Your task to perform on an android device: open a bookmark in the chrome app Image 0: 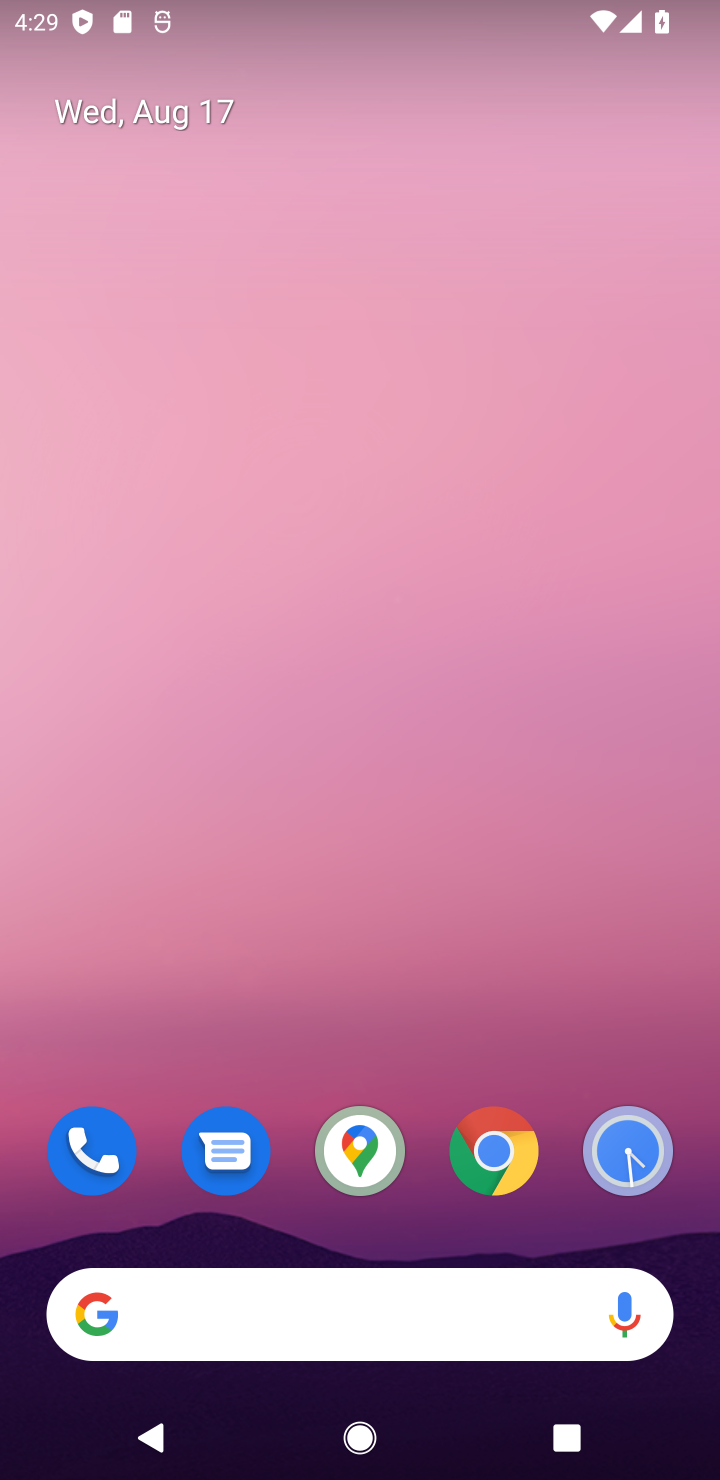
Step 0: press home button
Your task to perform on an android device: open a bookmark in the chrome app Image 1: 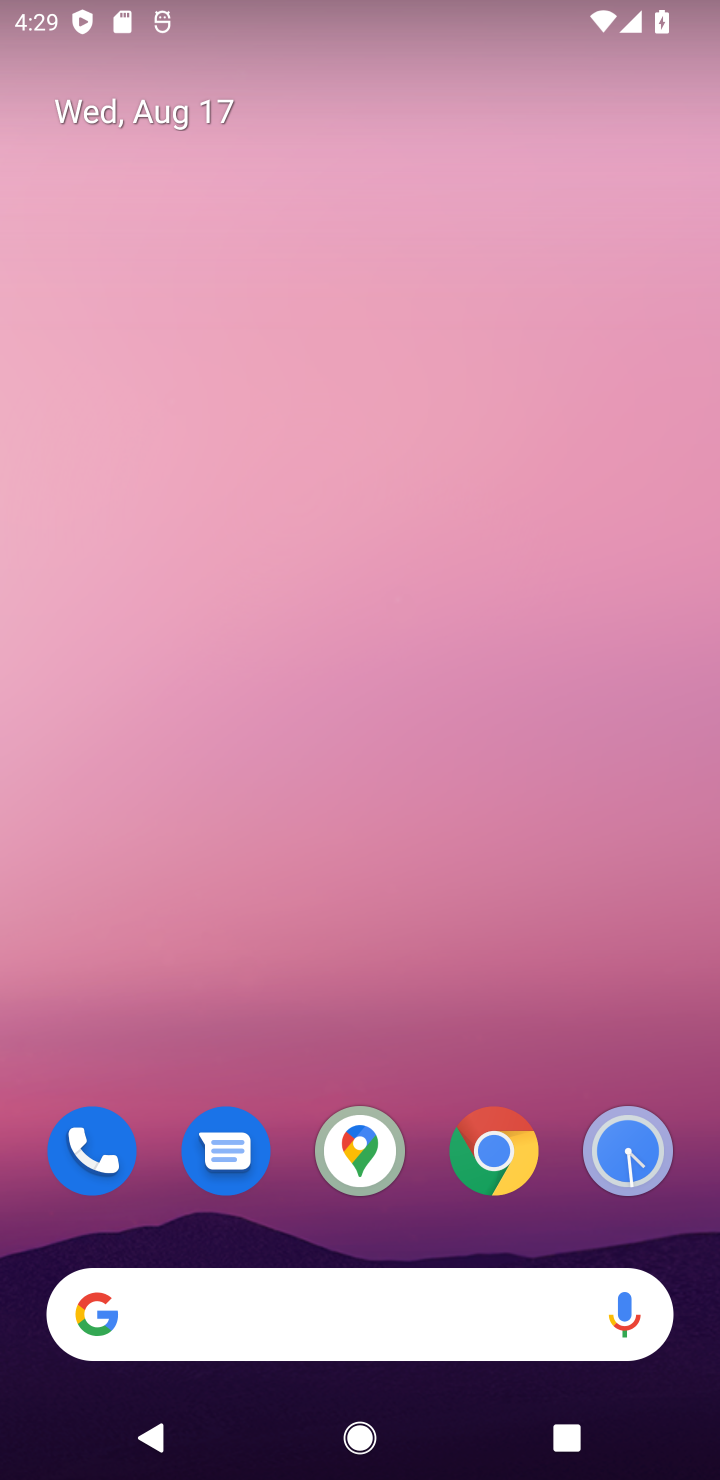
Step 1: drag from (440, 1234) to (453, 31)
Your task to perform on an android device: open a bookmark in the chrome app Image 2: 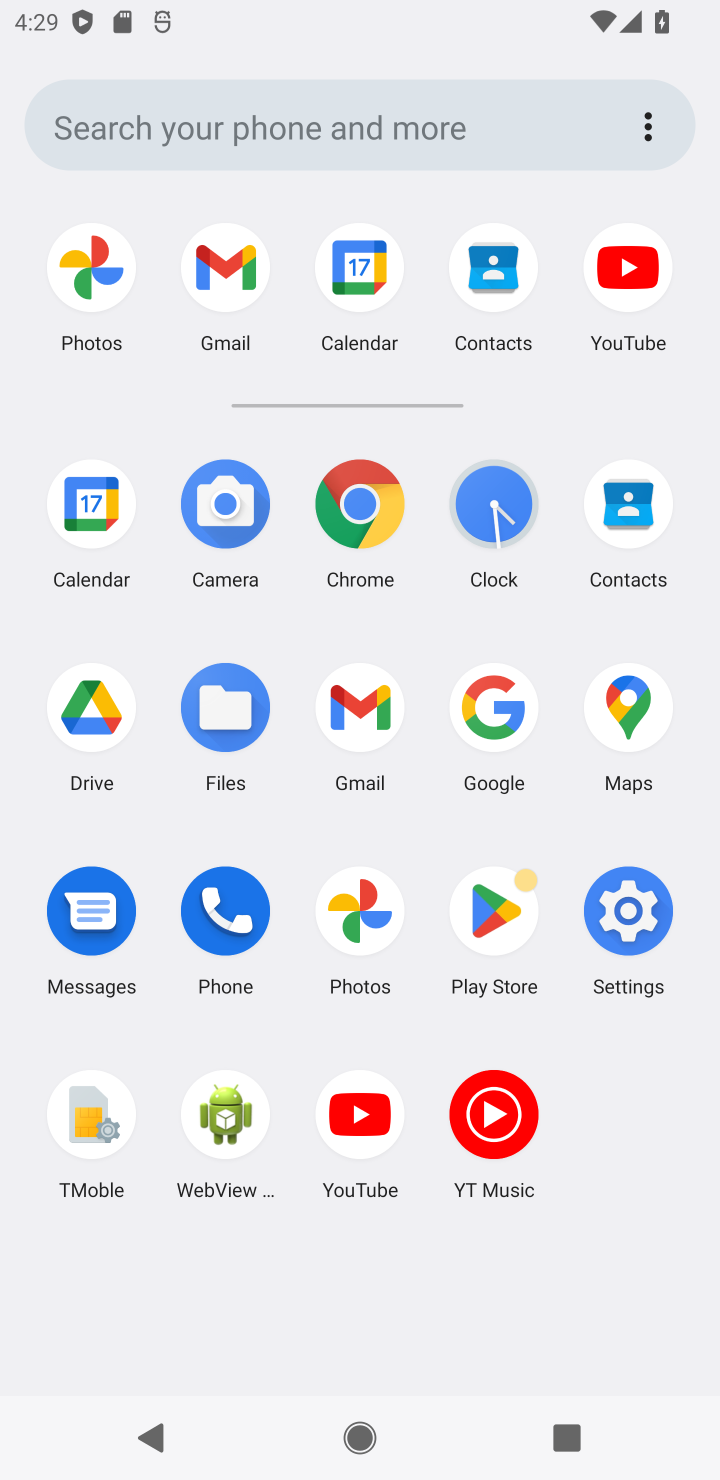
Step 2: click (352, 530)
Your task to perform on an android device: open a bookmark in the chrome app Image 3: 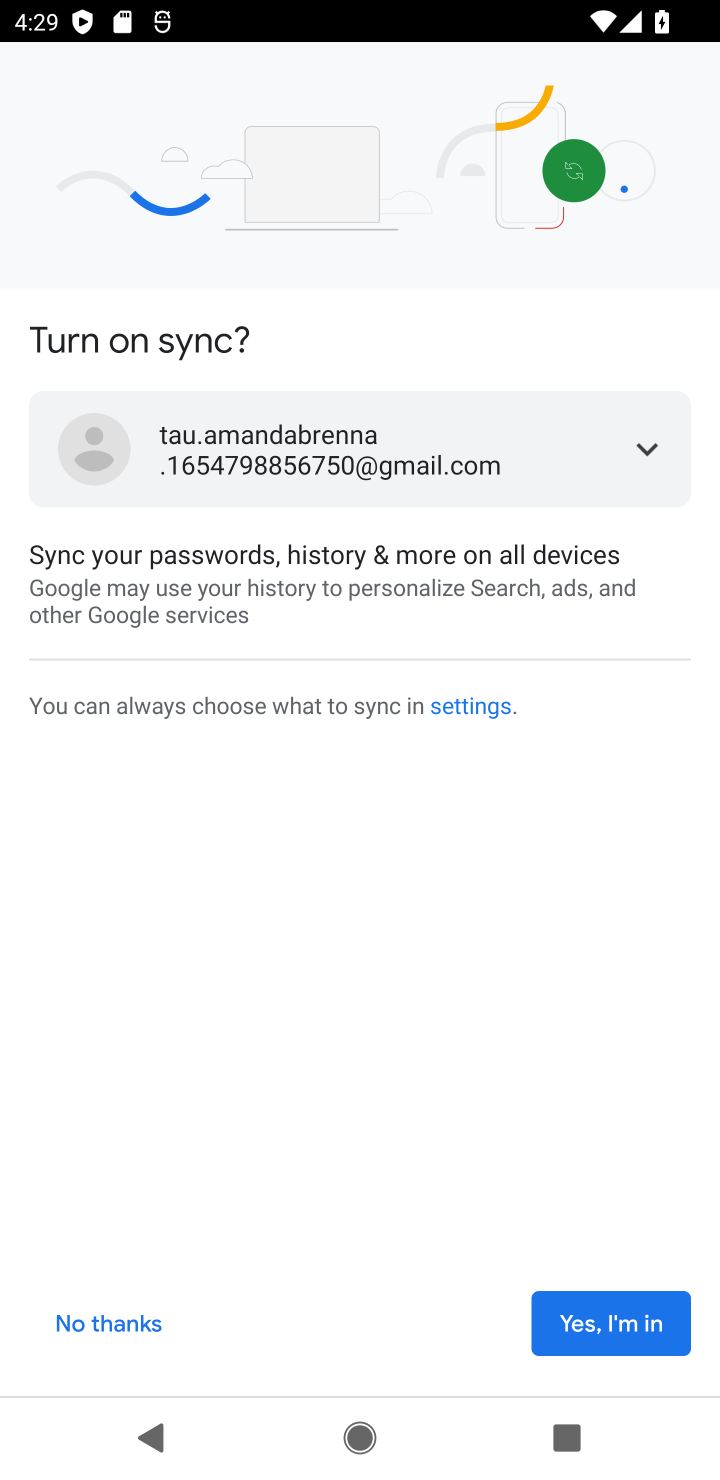
Step 3: click (609, 1346)
Your task to perform on an android device: open a bookmark in the chrome app Image 4: 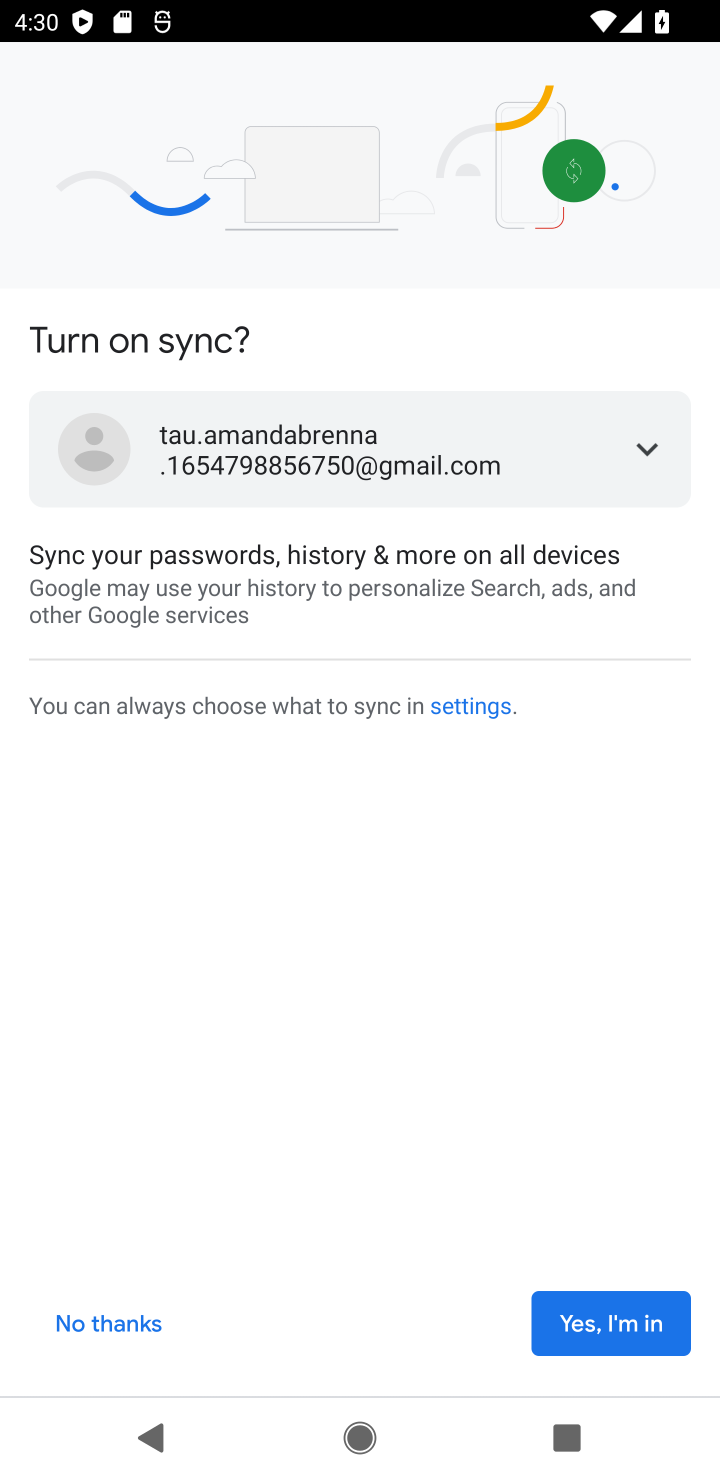
Step 4: click (609, 1346)
Your task to perform on an android device: open a bookmark in the chrome app Image 5: 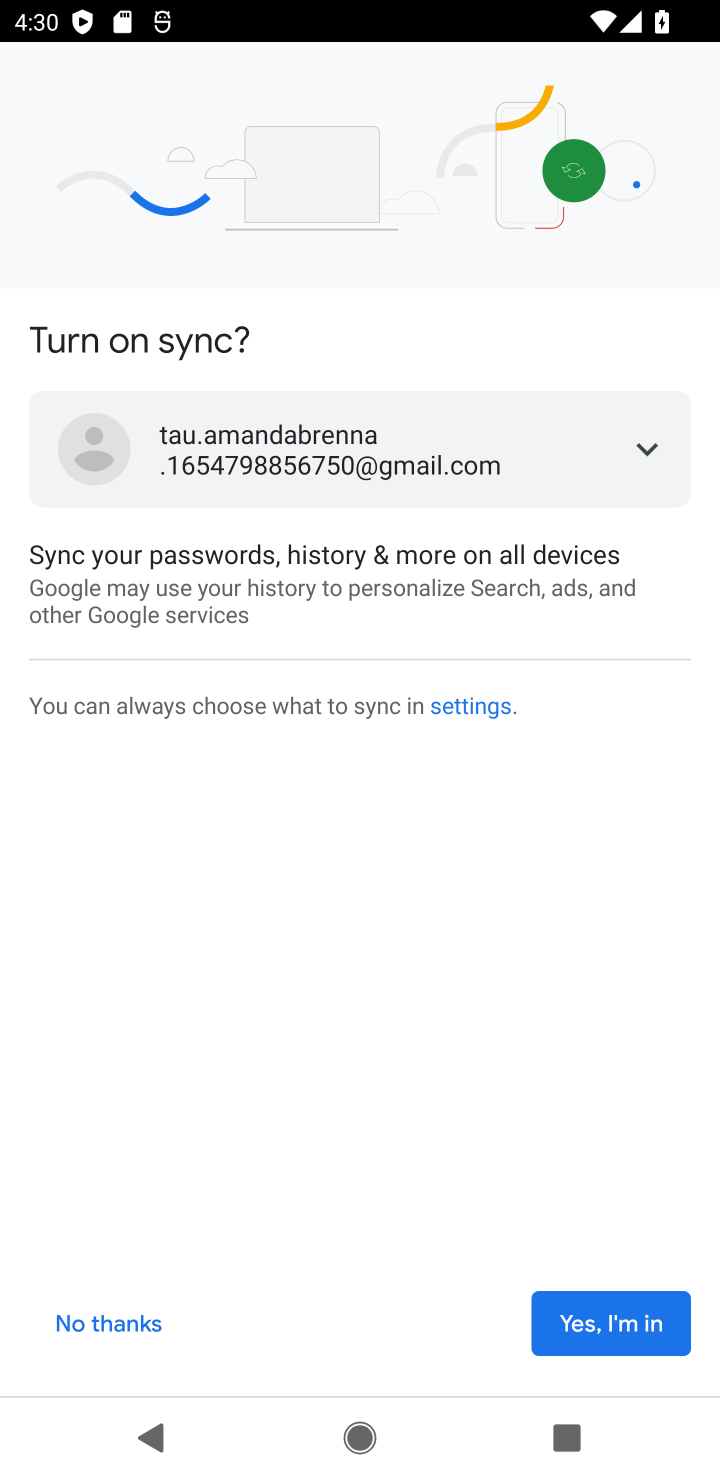
Step 5: click (609, 1346)
Your task to perform on an android device: open a bookmark in the chrome app Image 6: 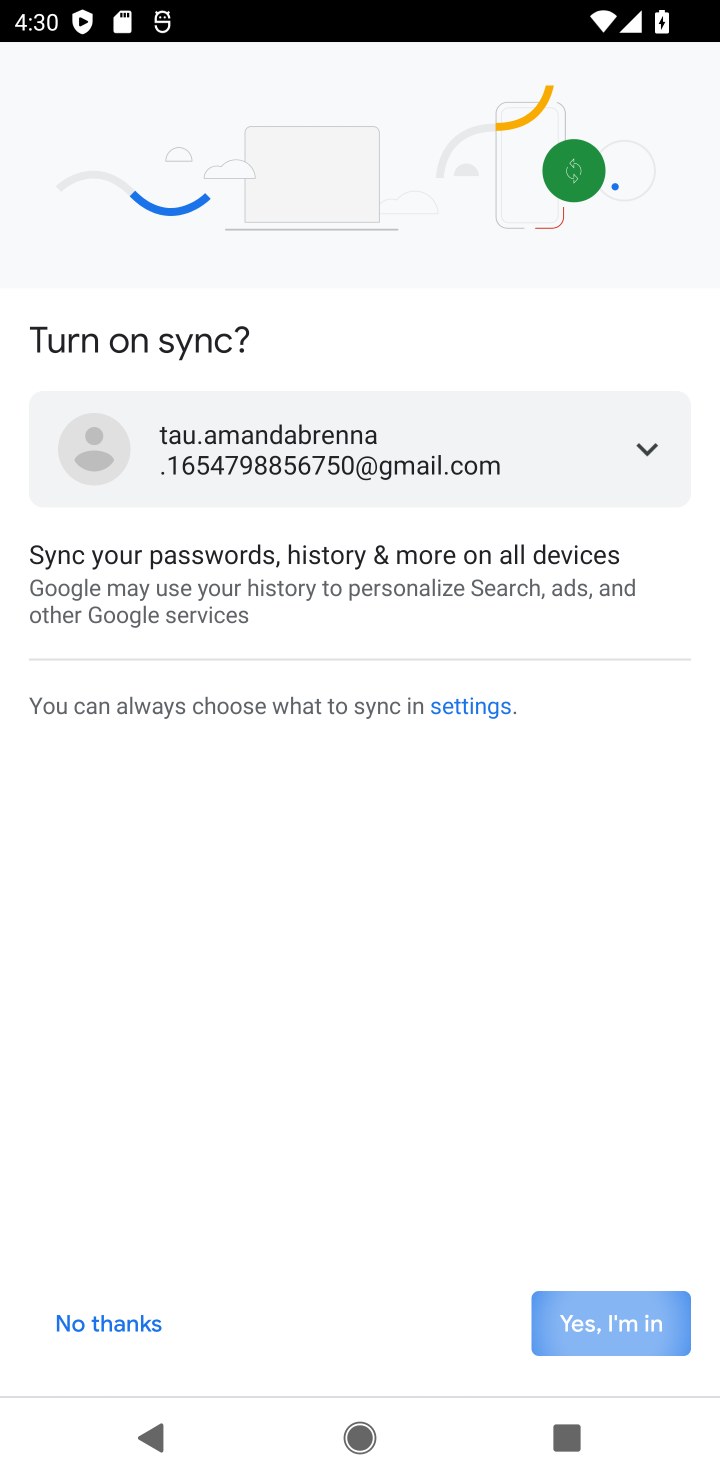
Step 6: click (609, 1346)
Your task to perform on an android device: open a bookmark in the chrome app Image 7: 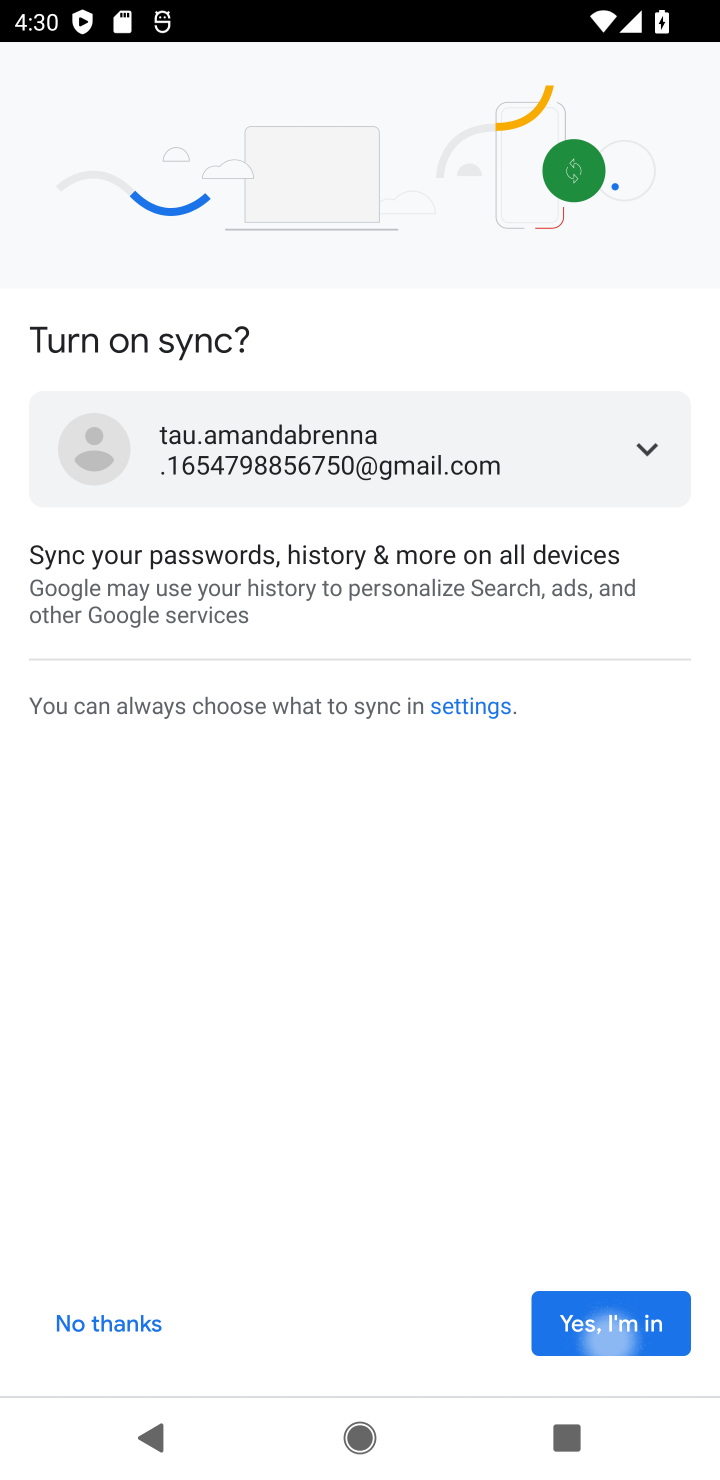
Step 7: click (609, 1346)
Your task to perform on an android device: open a bookmark in the chrome app Image 8: 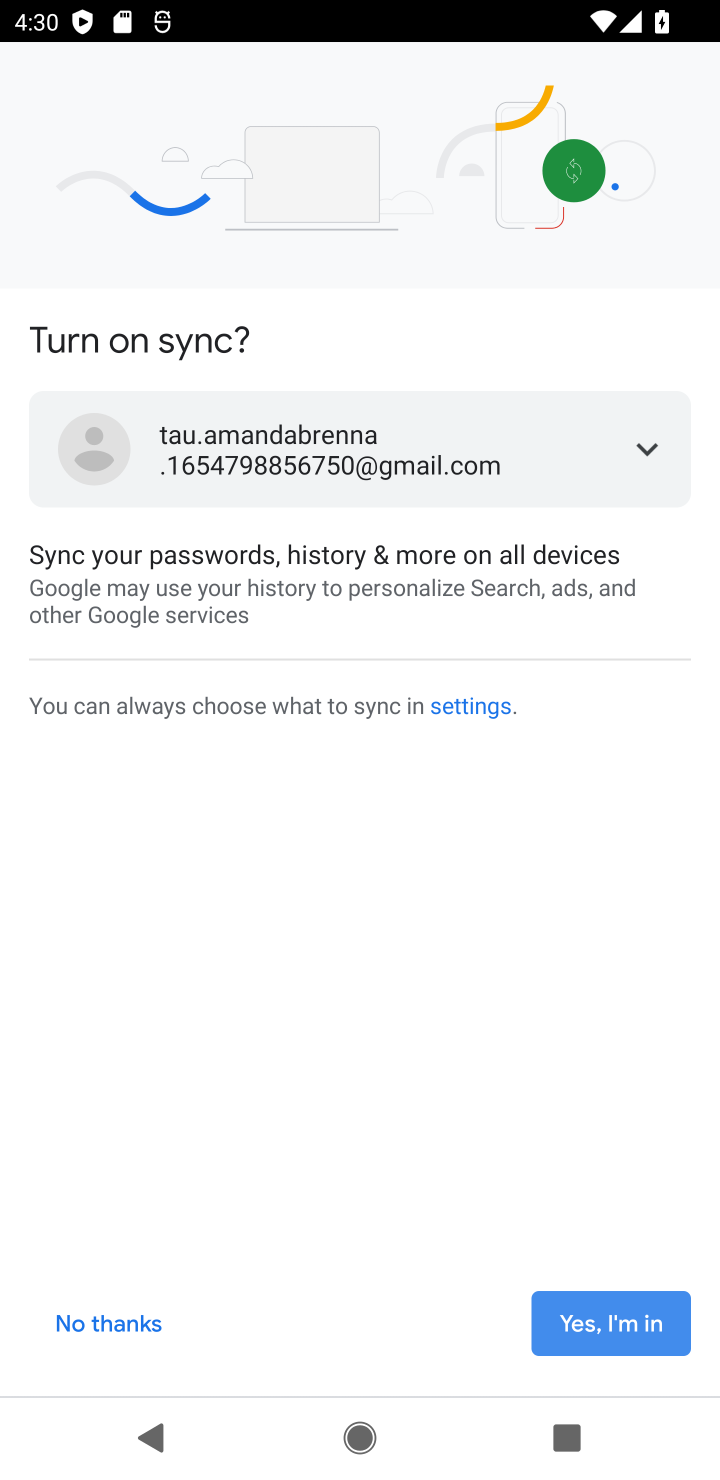
Step 8: click (609, 1346)
Your task to perform on an android device: open a bookmark in the chrome app Image 9: 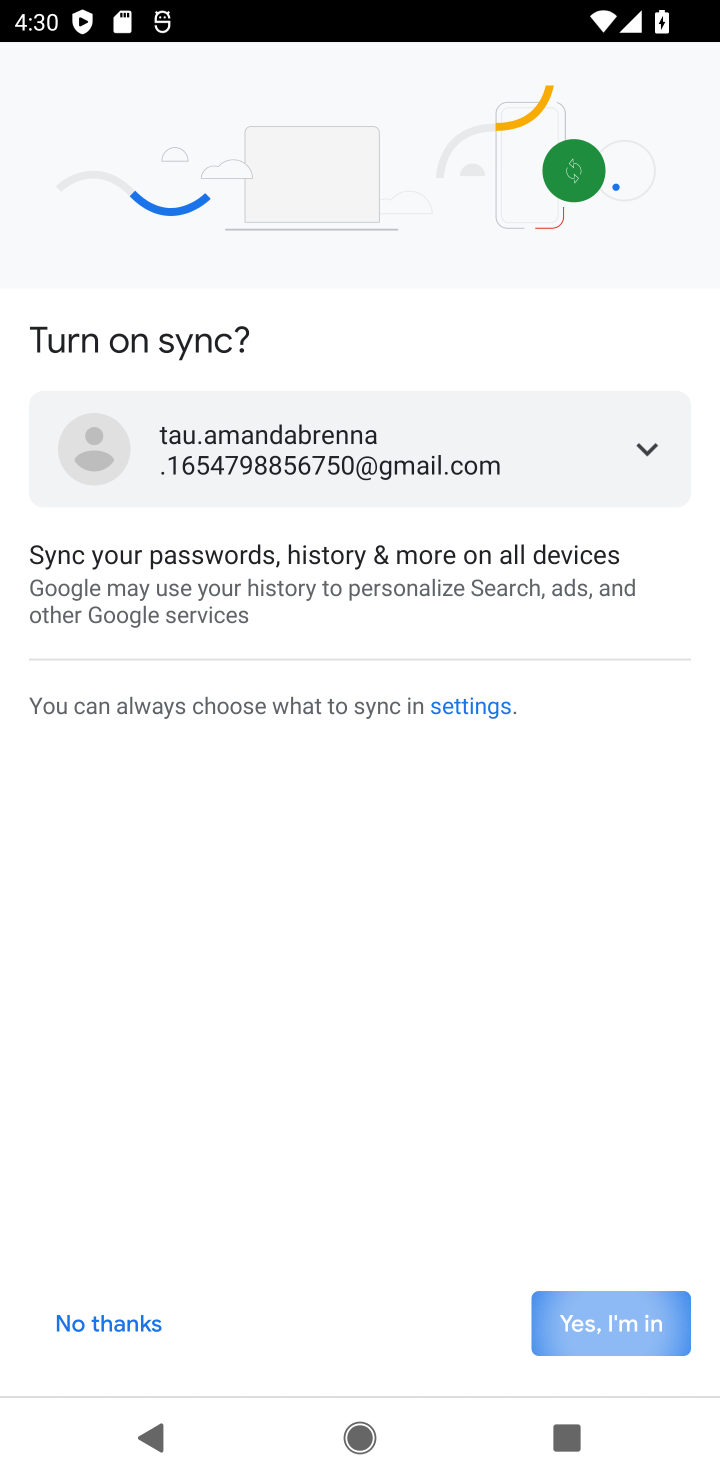
Step 9: click (609, 1346)
Your task to perform on an android device: open a bookmark in the chrome app Image 10: 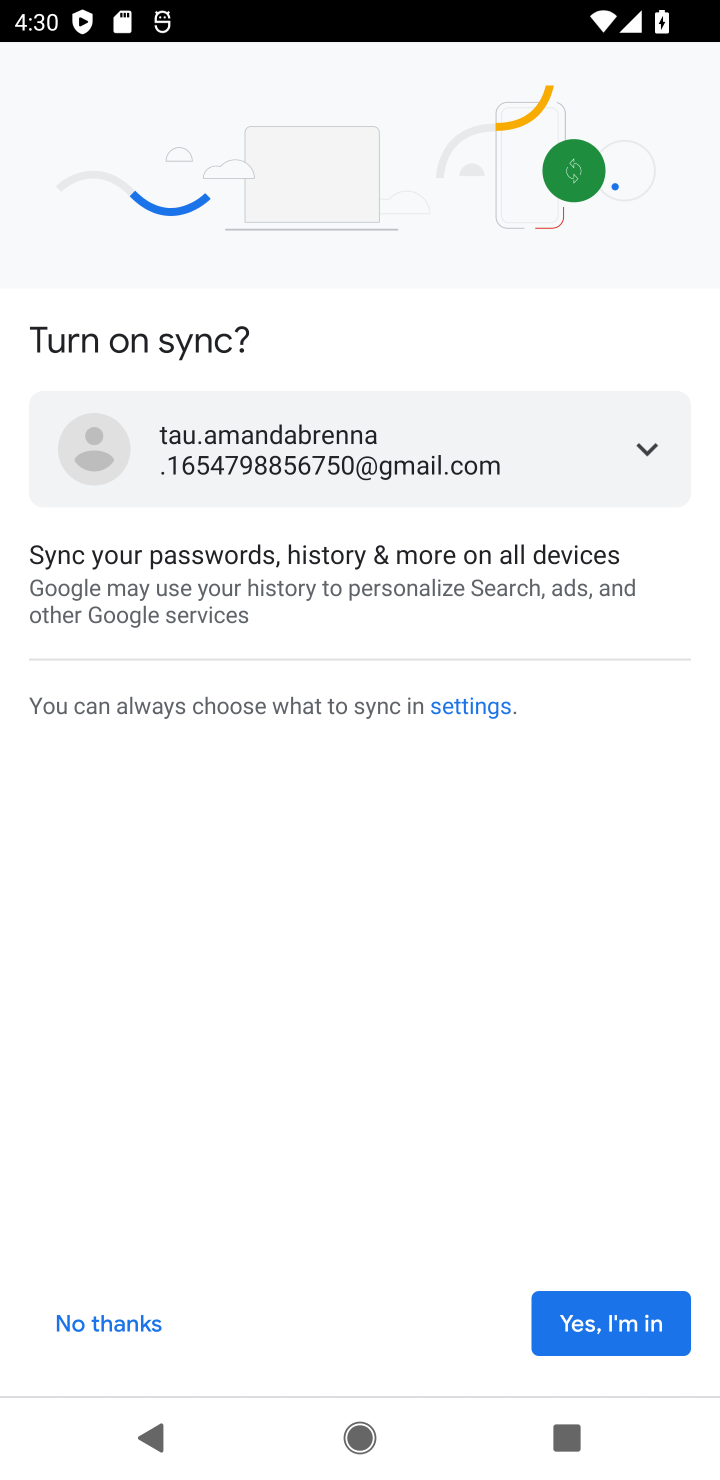
Step 10: task complete